Your task to perform on an android device: allow cookies in the chrome app Image 0: 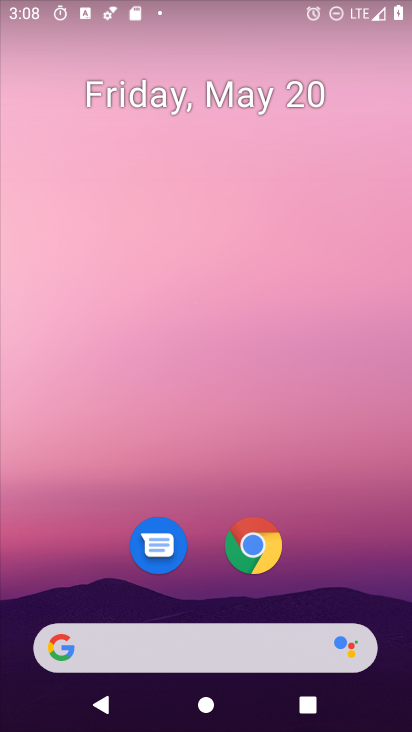
Step 0: drag from (305, 565) to (312, 2)
Your task to perform on an android device: allow cookies in the chrome app Image 1: 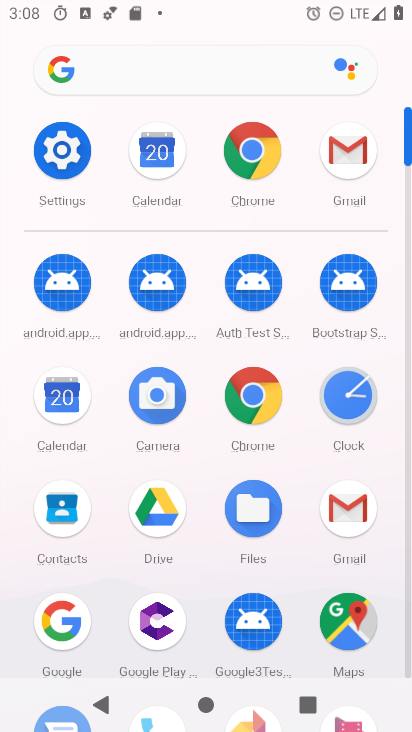
Step 1: click (248, 408)
Your task to perform on an android device: allow cookies in the chrome app Image 2: 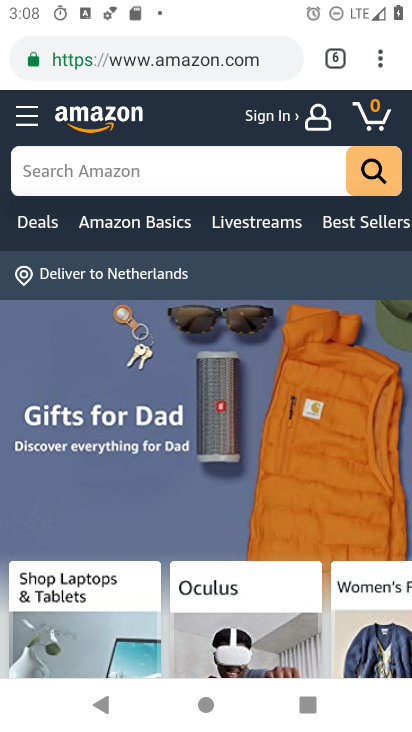
Step 2: drag from (372, 41) to (181, 582)
Your task to perform on an android device: allow cookies in the chrome app Image 3: 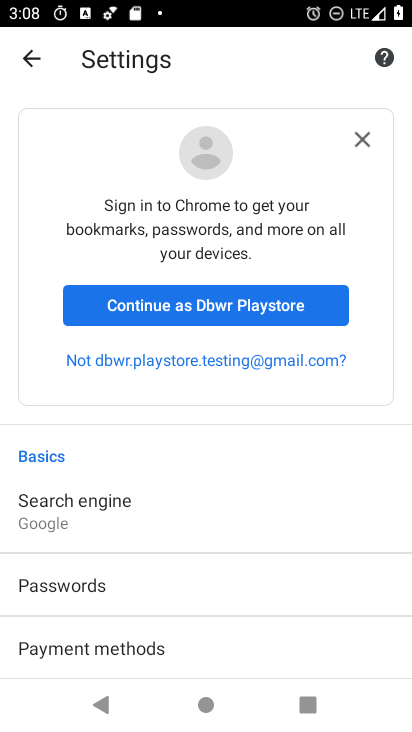
Step 3: drag from (348, 651) to (325, 38)
Your task to perform on an android device: allow cookies in the chrome app Image 4: 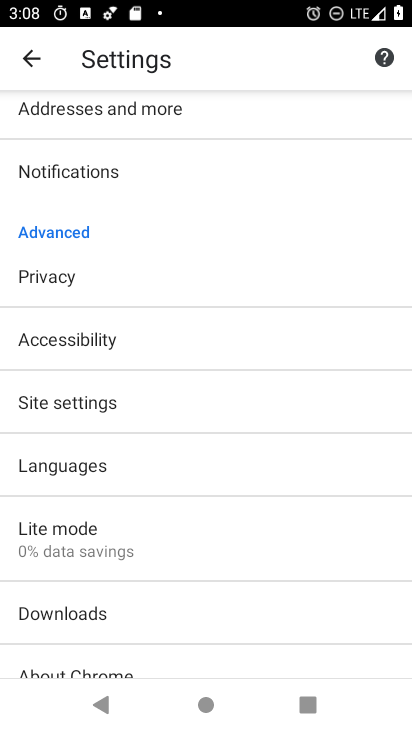
Step 4: click (126, 406)
Your task to perform on an android device: allow cookies in the chrome app Image 5: 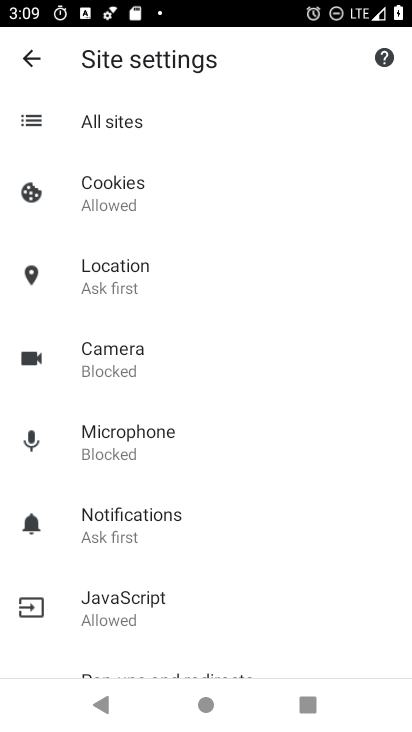
Step 5: click (118, 206)
Your task to perform on an android device: allow cookies in the chrome app Image 6: 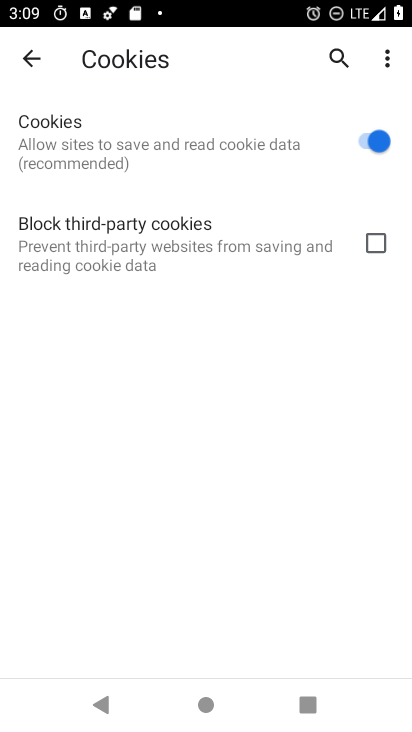
Step 6: task complete